Your task to perform on an android device: What's the weather going to be tomorrow? Image 0: 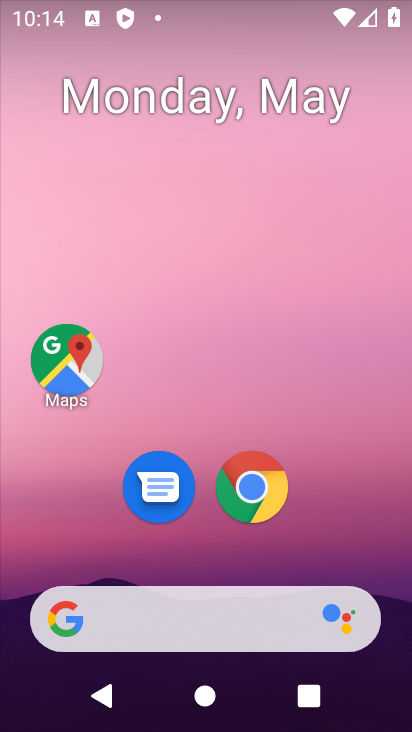
Step 0: drag from (318, 550) to (208, 0)
Your task to perform on an android device: What's the weather going to be tomorrow? Image 1: 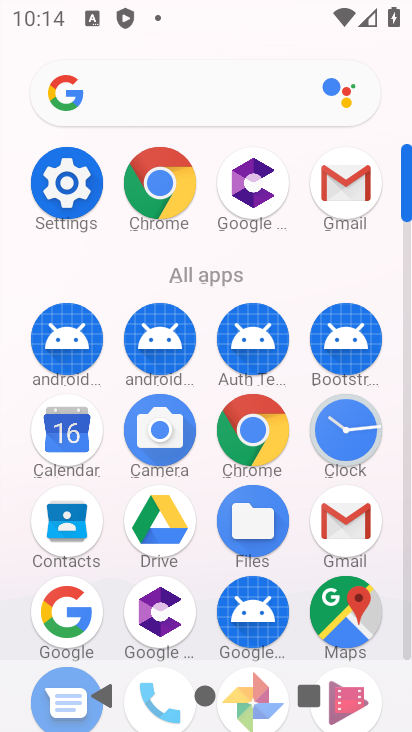
Step 1: click (62, 613)
Your task to perform on an android device: What's the weather going to be tomorrow? Image 2: 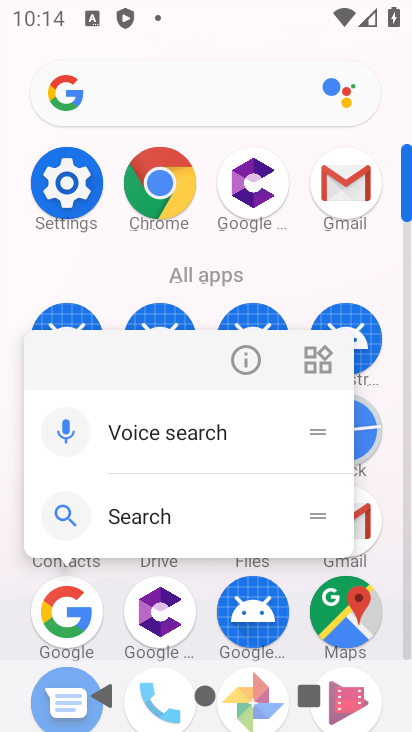
Step 2: click (62, 612)
Your task to perform on an android device: What's the weather going to be tomorrow? Image 3: 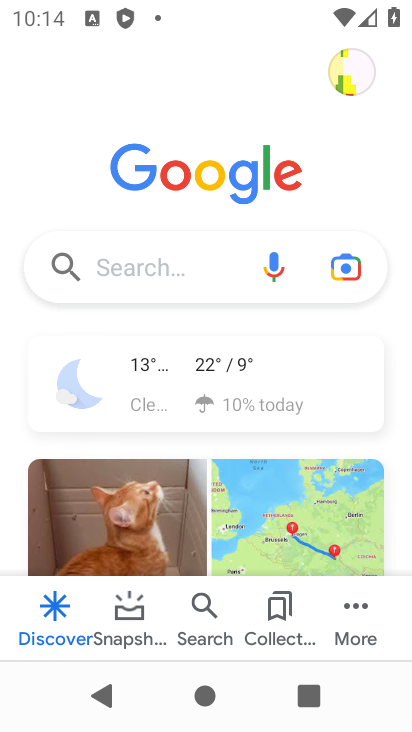
Step 3: click (163, 356)
Your task to perform on an android device: What's the weather going to be tomorrow? Image 4: 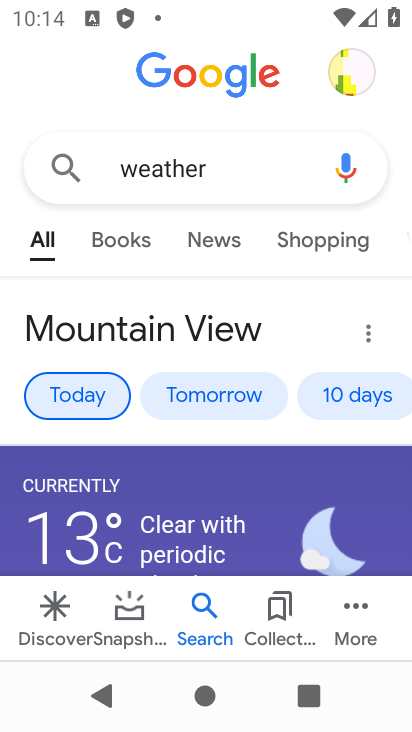
Step 4: click (212, 403)
Your task to perform on an android device: What's the weather going to be tomorrow? Image 5: 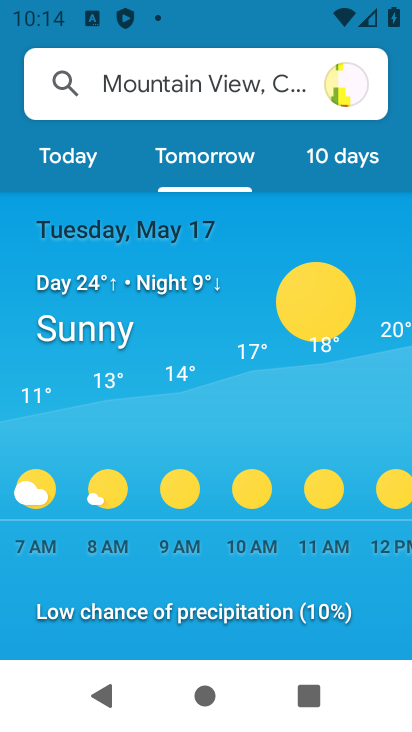
Step 5: task complete